Your task to perform on an android device: Open Amazon Image 0: 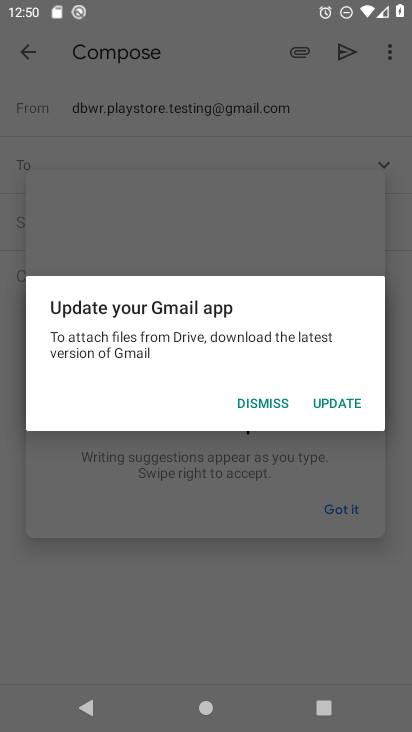
Step 0: press back button
Your task to perform on an android device: Open Amazon Image 1: 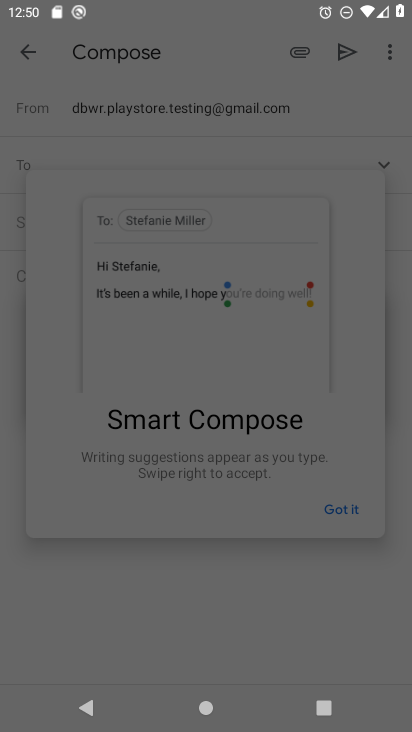
Step 1: press back button
Your task to perform on an android device: Open Amazon Image 2: 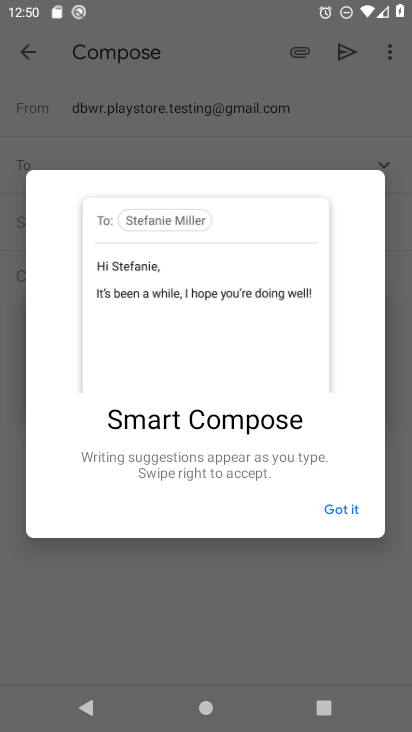
Step 2: press back button
Your task to perform on an android device: Open Amazon Image 3: 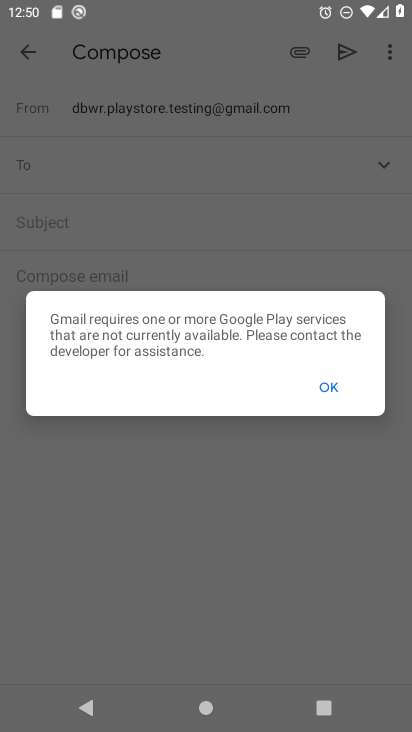
Step 3: press back button
Your task to perform on an android device: Open Amazon Image 4: 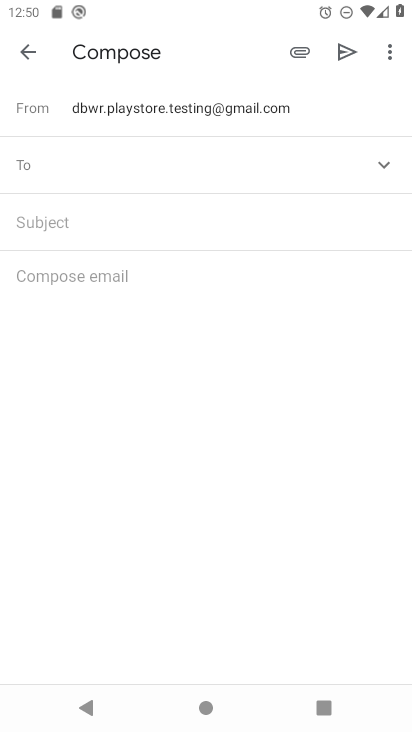
Step 4: press back button
Your task to perform on an android device: Open Amazon Image 5: 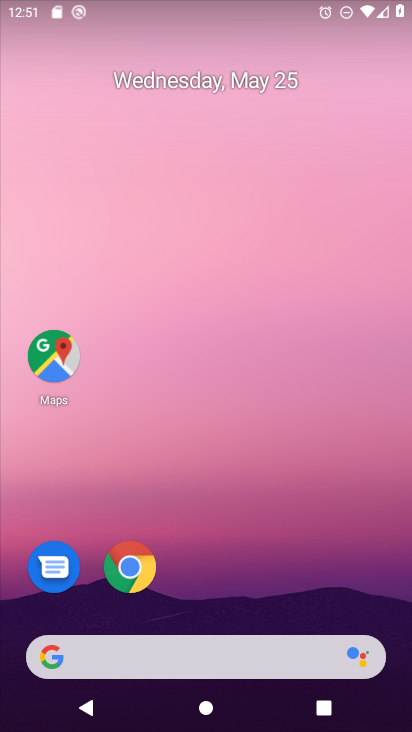
Step 5: click (137, 563)
Your task to perform on an android device: Open Amazon Image 6: 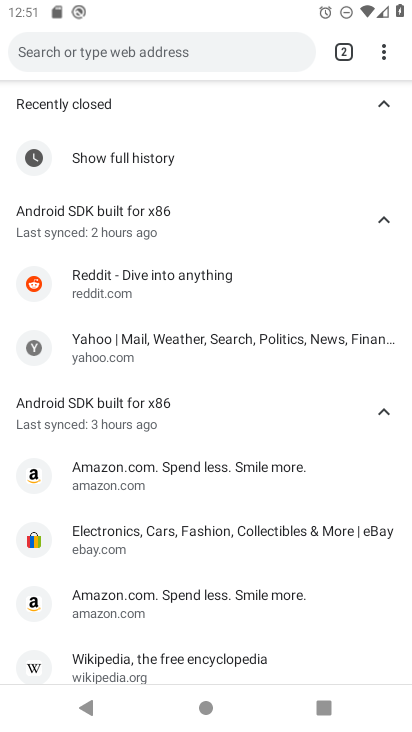
Step 6: click (177, 50)
Your task to perform on an android device: Open Amazon Image 7: 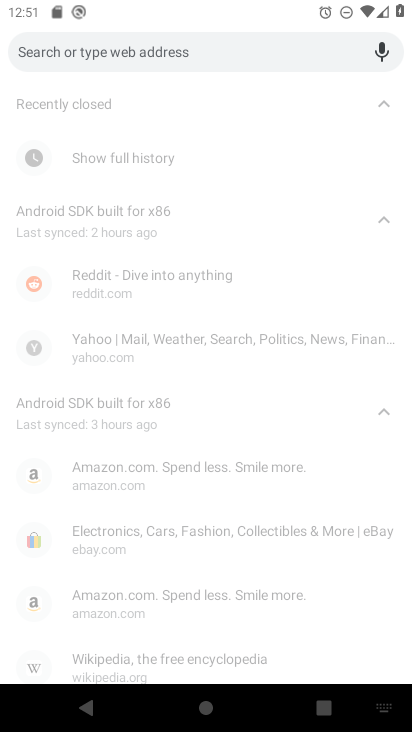
Step 7: type "Amazon"
Your task to perform on an android device: Open Amazon Image 8: 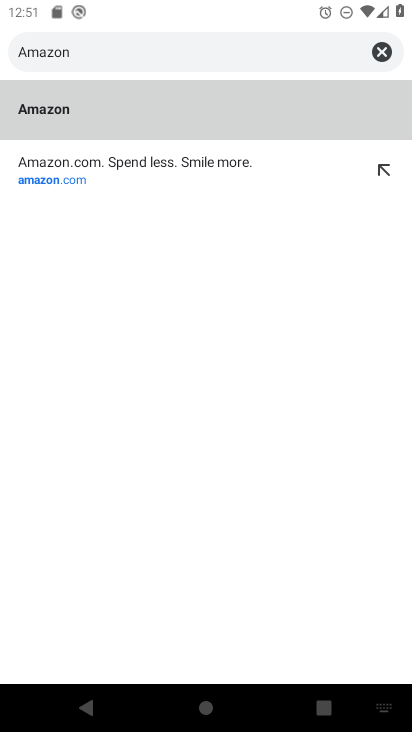
Step 8: click (48, 104)
Your task to perform on an android device: Open Amazon Image 9: 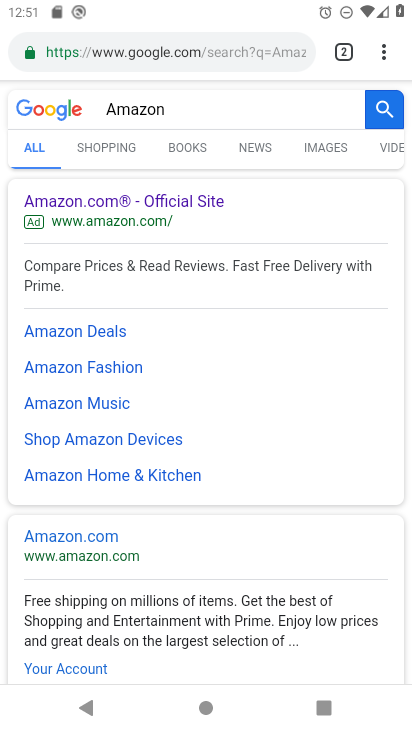
Step 9: task complete